Your task to perform on an android device: see tabs open on other devices in the chrome app Image 0: 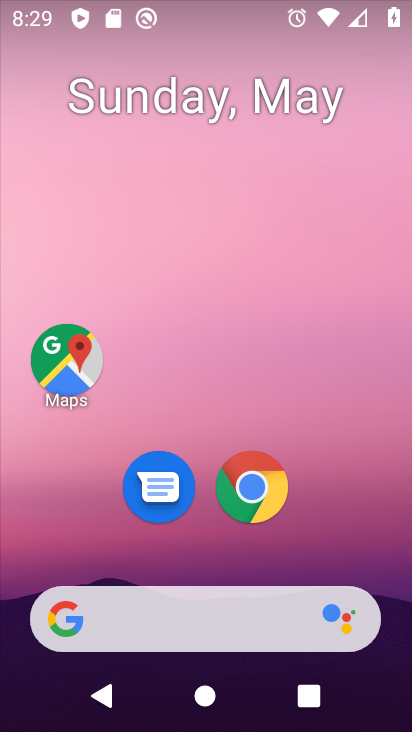
Step 0: click (227, 483)
Your task to perform on an android device: see tabs open on other devices in the chrome app Image 1: 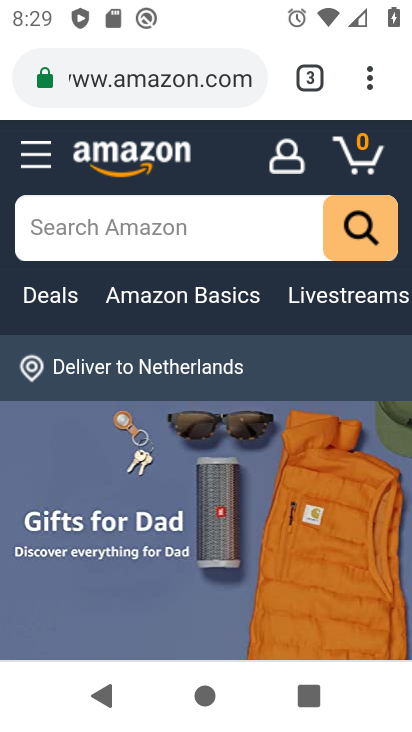
Step 1: task complete